Your task to perform on an android device: Open notification settings Image 0: 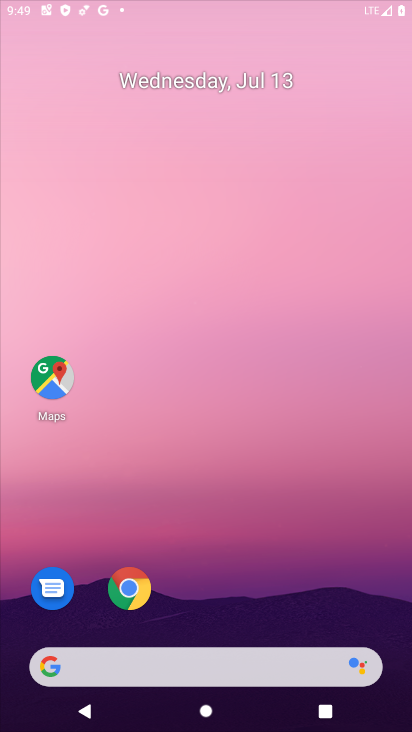
Step 0: drag from (212, 614) to (230, 122)
Your task to perform on an android device: Open notification settings Image 1: 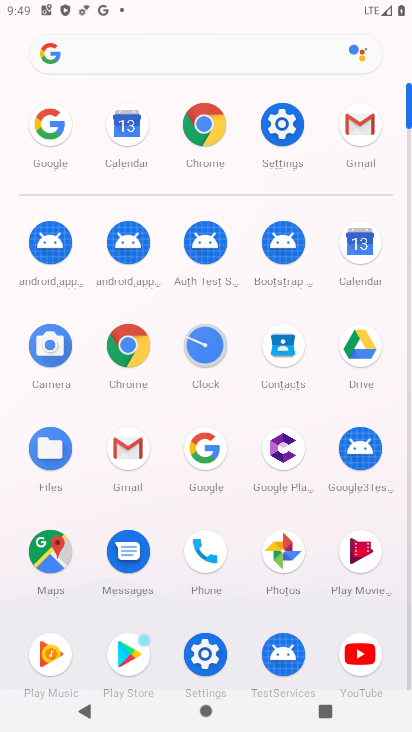
Step 1: click (277, 117)
Your task to perform on an android device: Open notification settings Image 2: 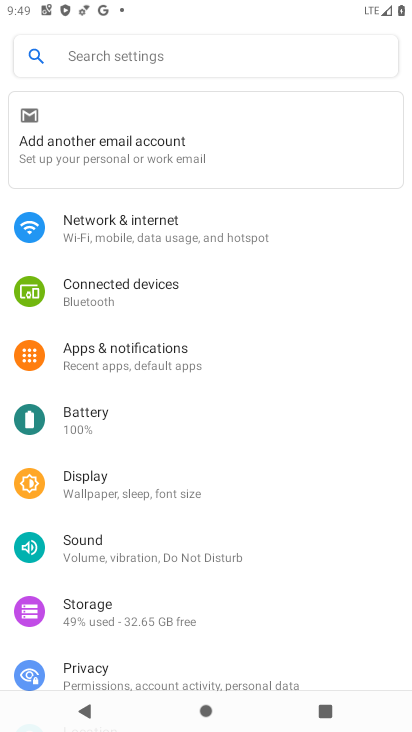
Step 2: click (158, 368)
Your task to perform on an android device: Open notification settings Image 3: 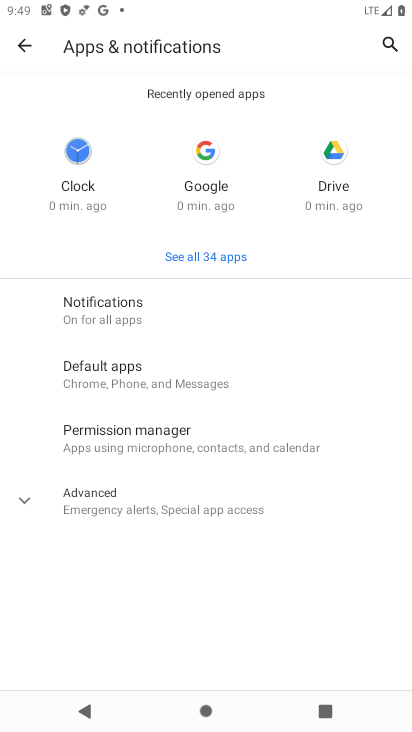
Step 3: click (105, 300)
Your task to perform on an android device: Open notification settings Image 4: 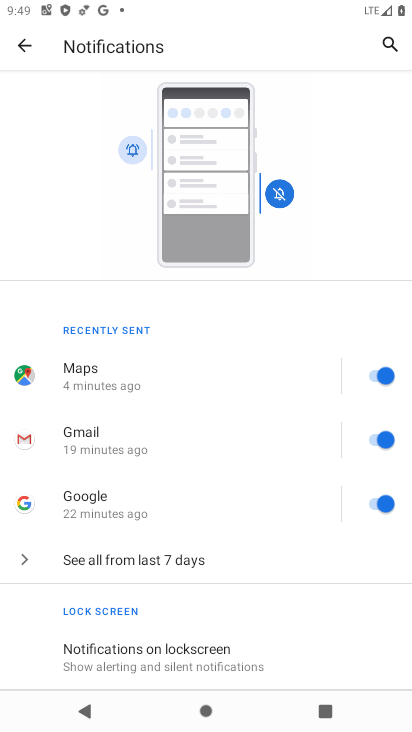
Step 4: task complete